Your task to perform on an android device: turn off sleep mode Image 0: 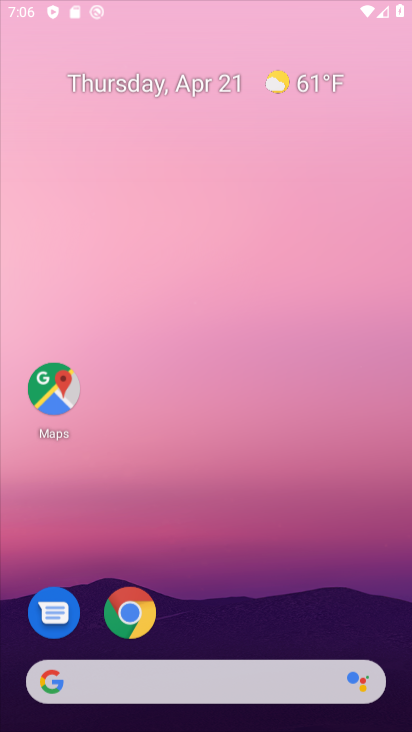
Step 0: drag from (200, 652) to (311, 255)
Your task to perform on an android device: turn off sleep mode Image 1: 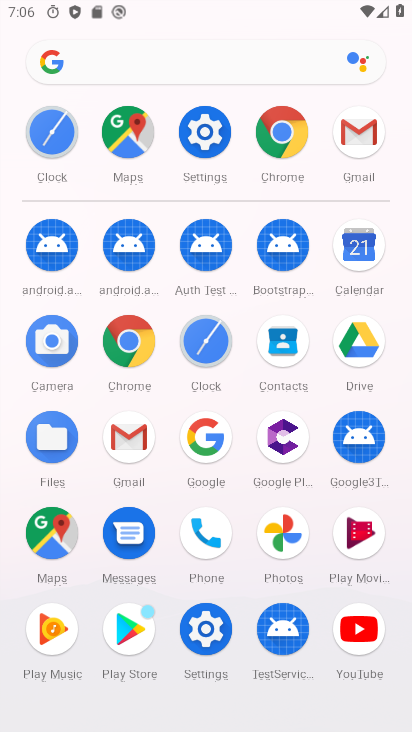
Step 1: click (211, 635)
Your task to perform on an android device: turn off sleep mode Image 2: 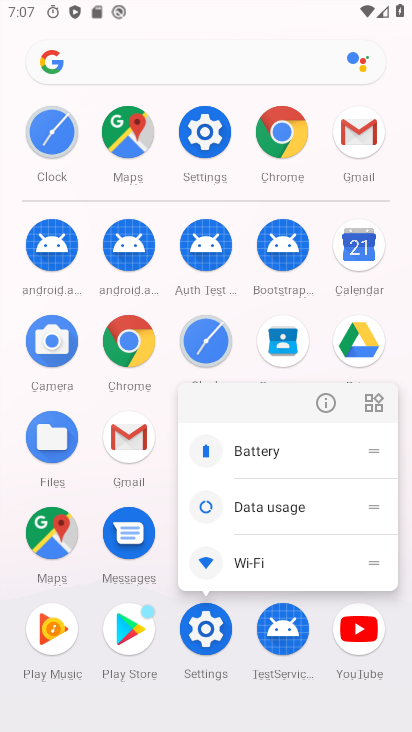
Step 2: click (337, 395)
Your task to perform on an android device: turn off sleep mode Image 3: 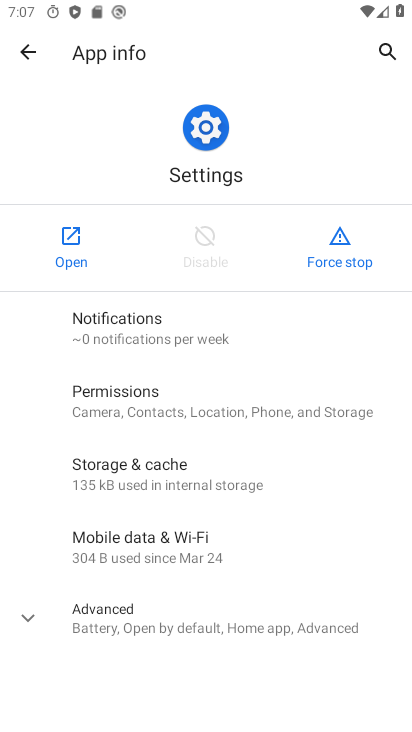
Step 3: click (69, 240)
Your task to perform on an android device: turn off sleep mode Image 4: 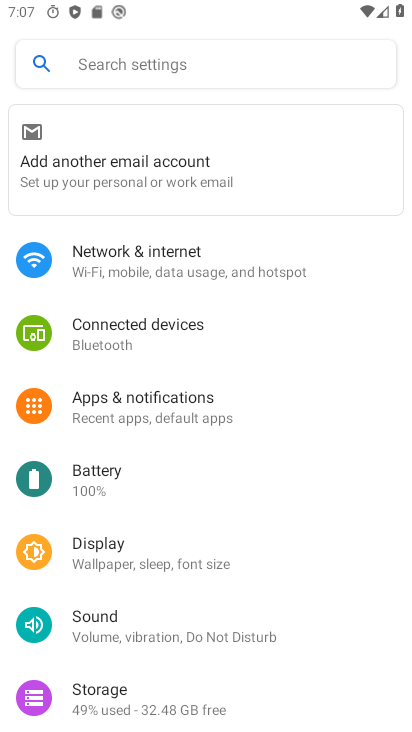
Step 4: click (139, 551)
Your task to perform on an android device: turn off sleep mode Image 5: 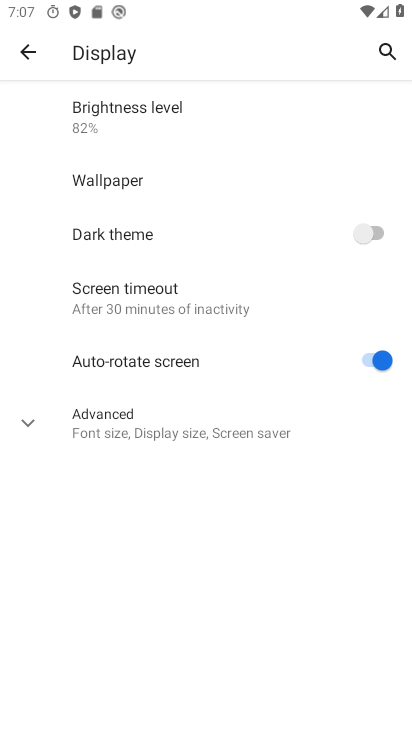
Step 5: click (298, 298)
Your task to perform on an android device: turn off sleep mode Image 6: 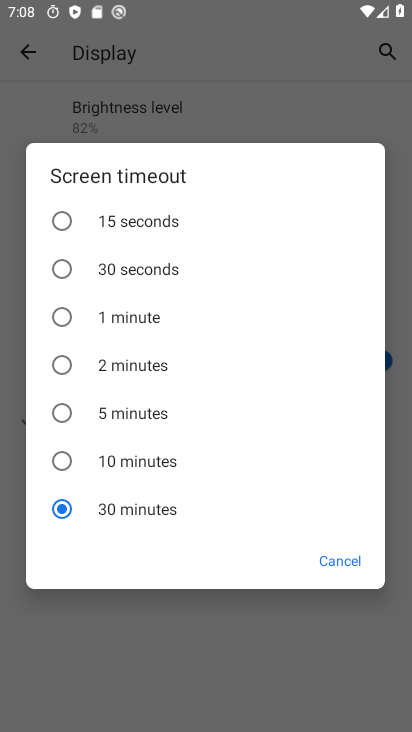
Step 6: task complete